Your task to perform on an android device: allow cookies in the chrome app Image 0: 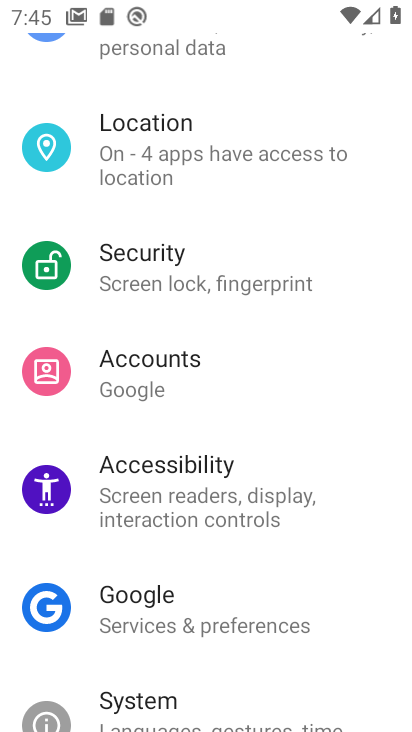
Step 0: press home button
Your task to perform on an android device: allow cookies in the chrome app Image 1: 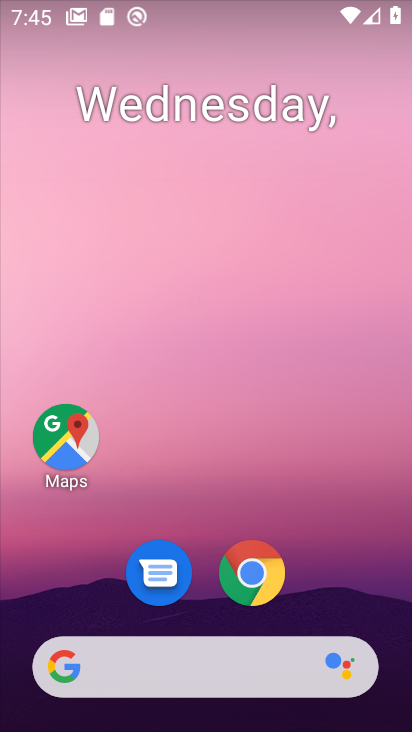
Step 1: click (249, 578)
Your task to perform on an android device: allow cookies in the chrome app Image 2: 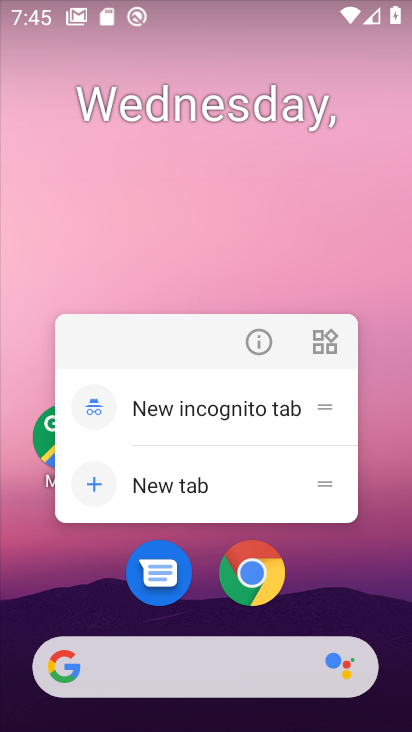
Step 2: click (249, 578)
Your task to perform on an android device: allow cookies in the chrome app Image 3: 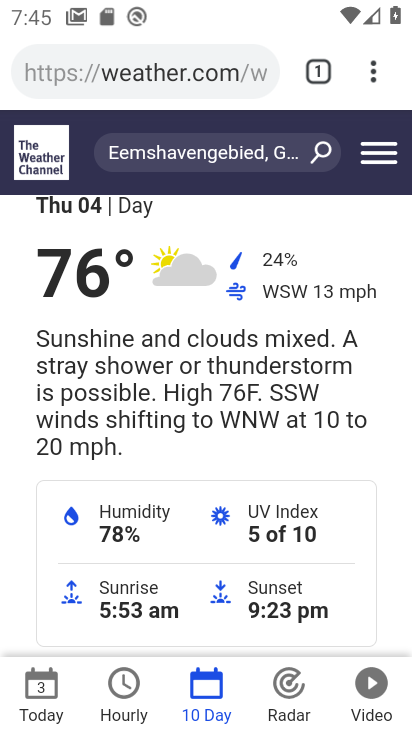
Step 3: click (374, 74)
Your task to perform on an android device: allow cookies in the chrome app Image 4: 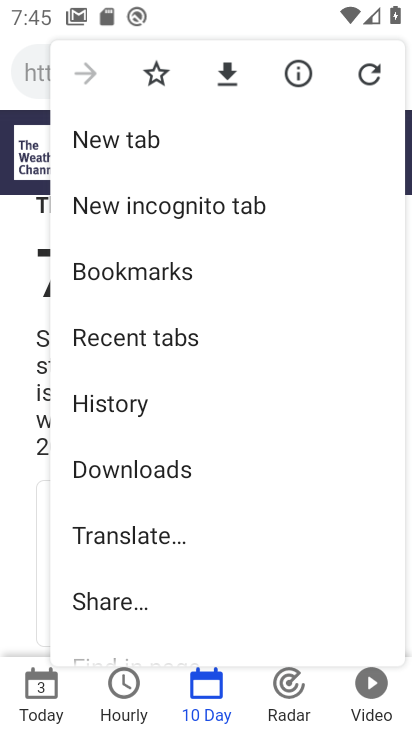
Step 4: drag from (245, 560) to (267, 167)
Your task to perform on an android device: allow cookies in the chrome app Image 5: 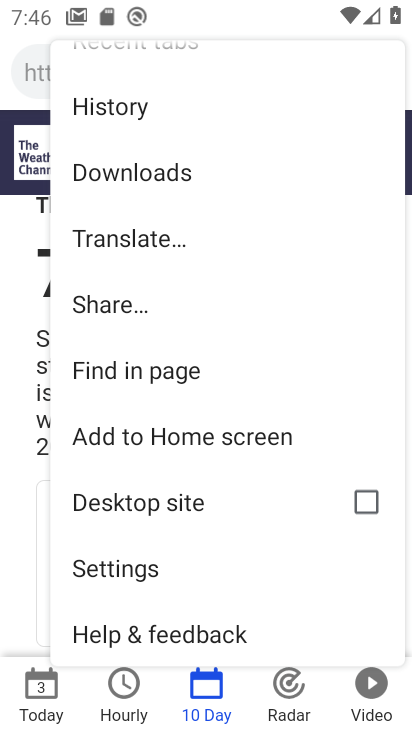
Step 5: click (129, 566)
Your task to perform on an android device: allow cookies in the chrome app Image 6: 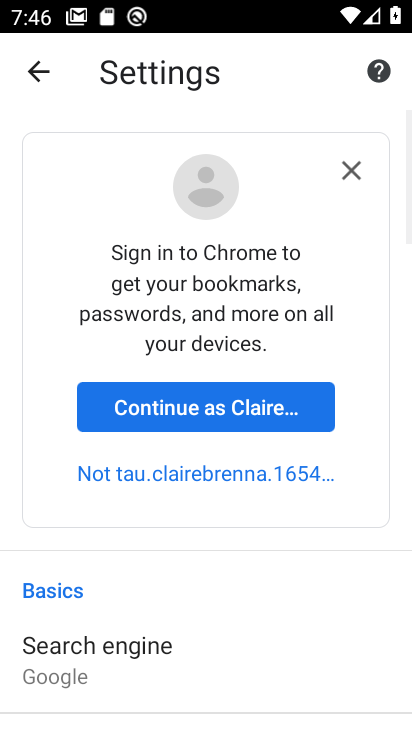
Step 6: drag from (248, 581) to (261, 142)
Your task to perform on an android device: allow cookies in the chrome app Image 7: 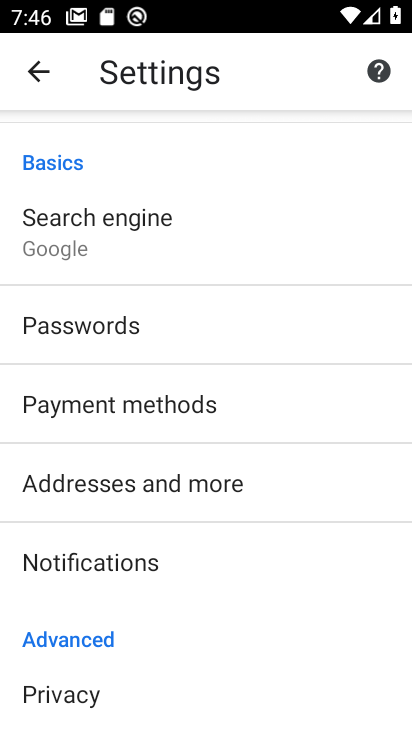
Step 7: drag from (229, 581) to (256, 194)
Your task to perform on an android device: allow cookies in the chrome app Image 8: 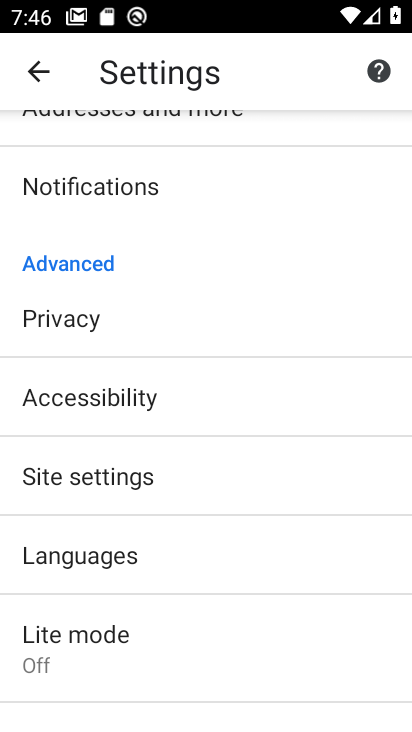
Step 8: click (108, 479)
Your task to perform on an android device: allow cookies in the chrome app Image 9: 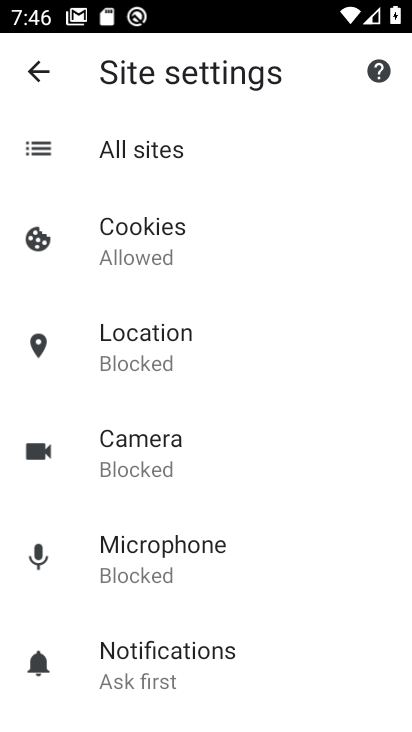
Step 9: click (142, 248)
Your task to perform on an android device: allow cookies in the chrome app Image 10: 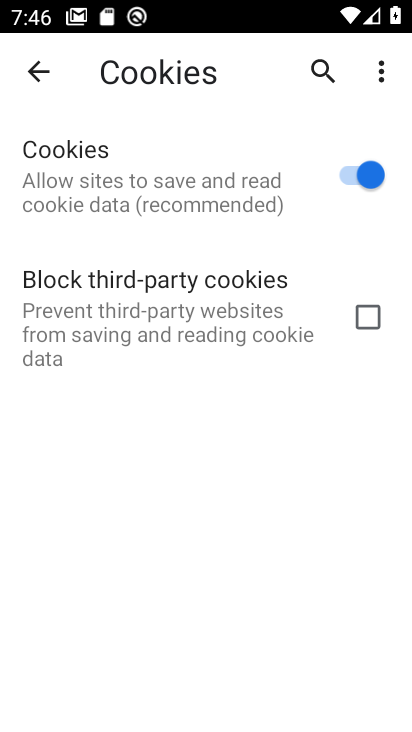
Step 10: task complete